Your task to perform on an android device: Search for seafood restaurants on Google Maps Image 0: 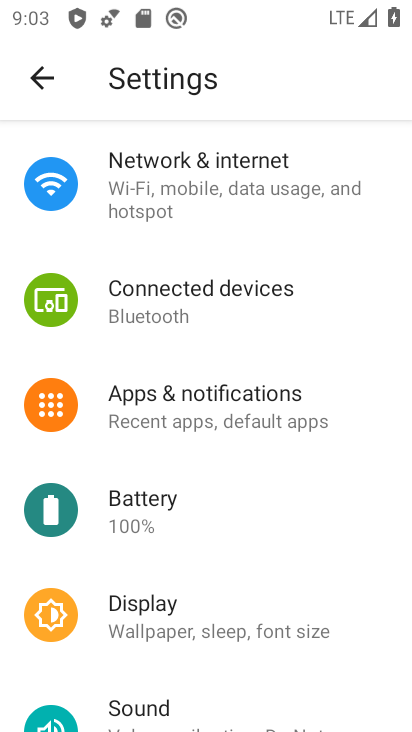
Step 0: press home button
Your task to perform on an android device: Search for seafood restaurants on Google Maps Image 1: 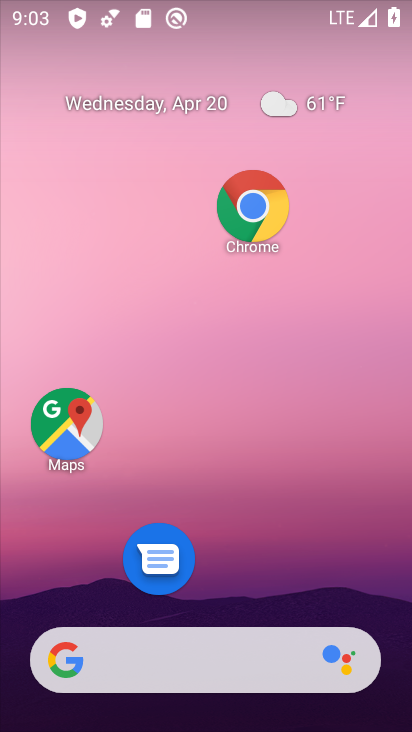
Step 1: click (66, 431)
Your task to perform on an android device: Search for seafood restaurants on Google Maps Image 2: 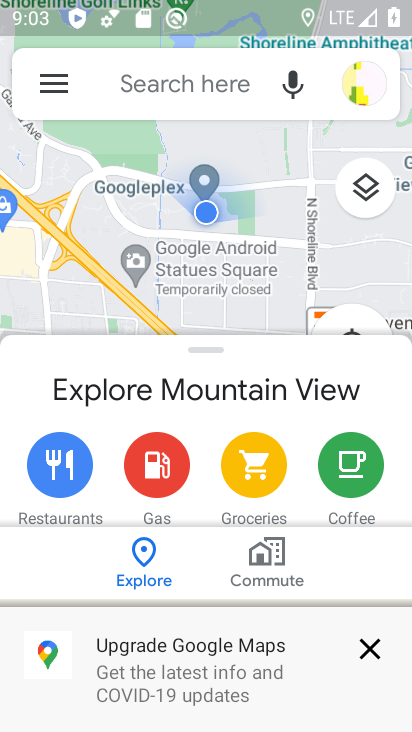
Step 2: click (146, 91)
Your task to perform on an android device: Search for seafood restaurants on Google Maps Image 3: 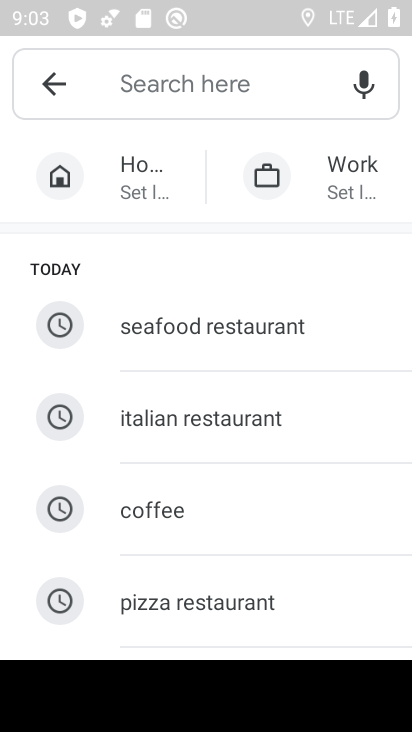
Step 3: click (283, 326)
Your task to perform on an android device: Search for seafood restaurants on Google Maps Image 4: 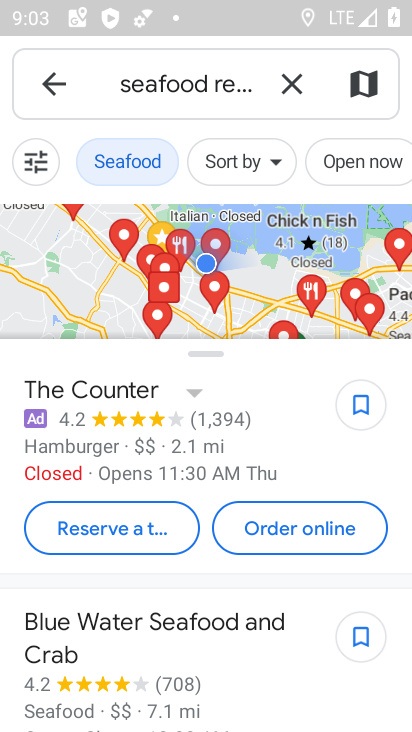
Step 4: task complete